Your task to perform on an android device: turn on bluetooth scan Image 0: 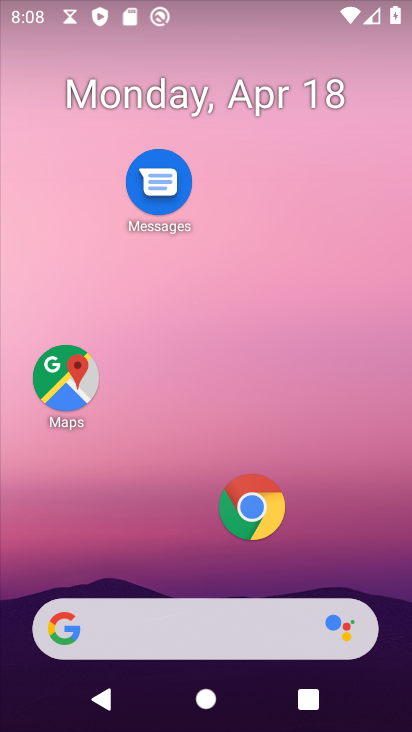
Step 0: drag from (218, 592) to (258, 248)
Your task to perform on an android device: turn on bluetooth scan Image 1: 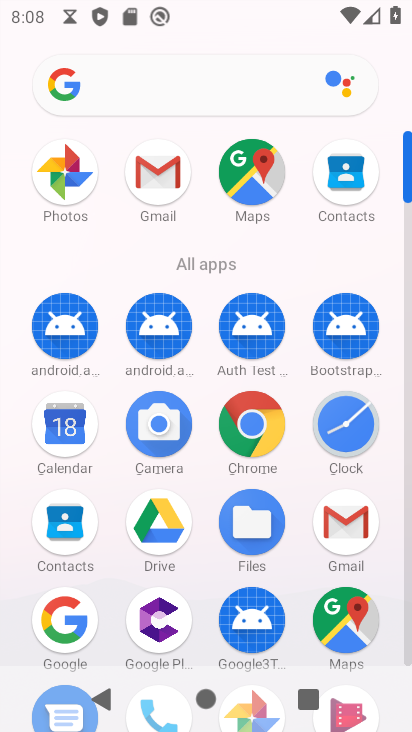
Step 1: drag from (209, 630) to (220, 255)
Your task to perform on an android device: turn on bluetooth scan Image 2: 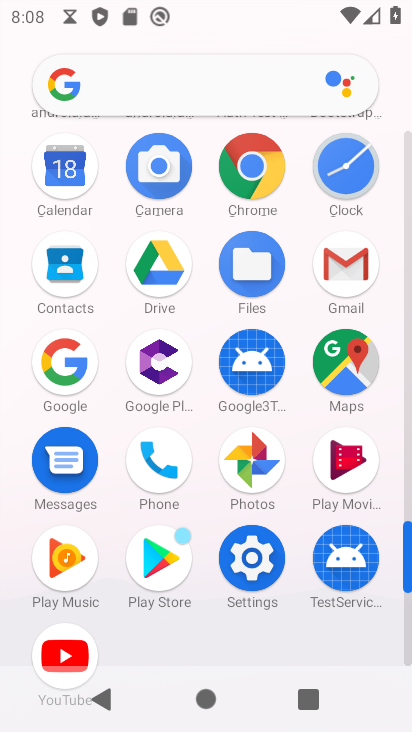
Step 2: click (257, 554)
Your task to perform on an android device: turn on bluetooth scan Image 3: 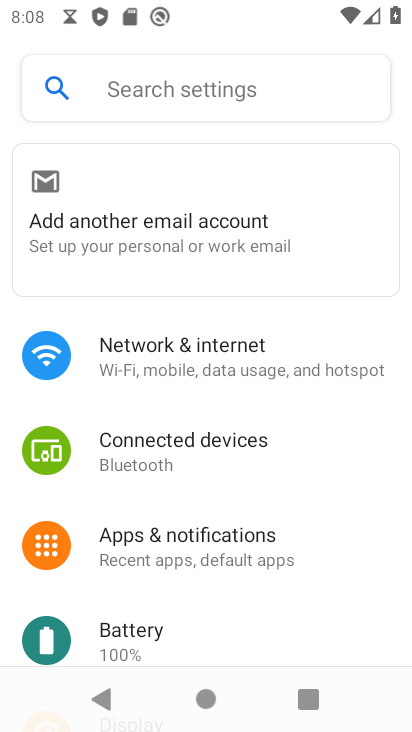
Step 3: drag from (199, 562) to (207, 280)
Your task to perform on an android device: turn on bluetooth scan Image 4: 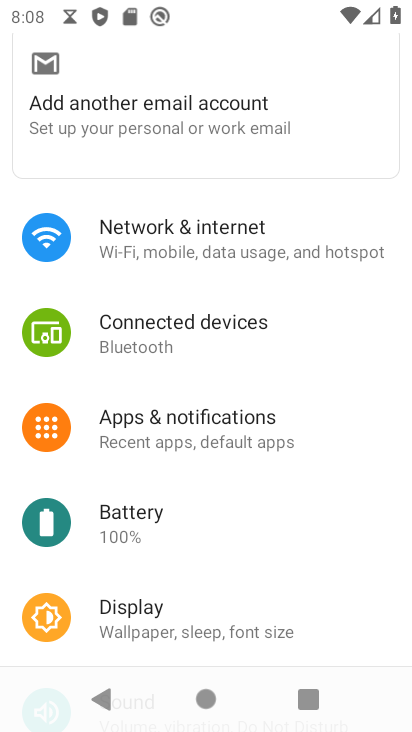
Step 4: drag from (167, 551) to (196, 258)
Your task to perform on an android device: turn on bluetooth scan Image 5: 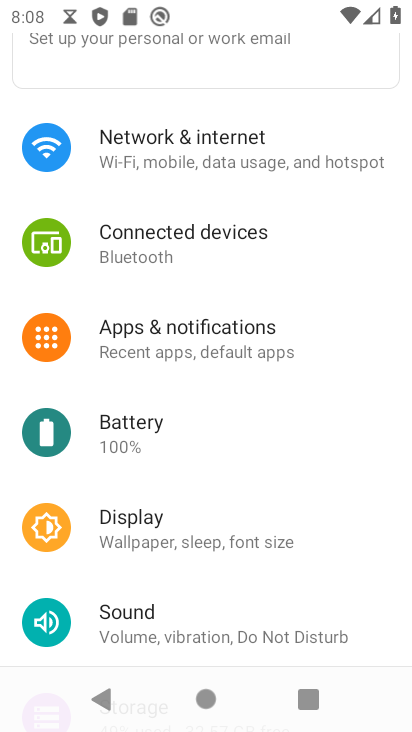
Step 5: drag from (152, 632) to (179, 322)
Your task to perform on an android device: turn on bluetooth scan Image 6: 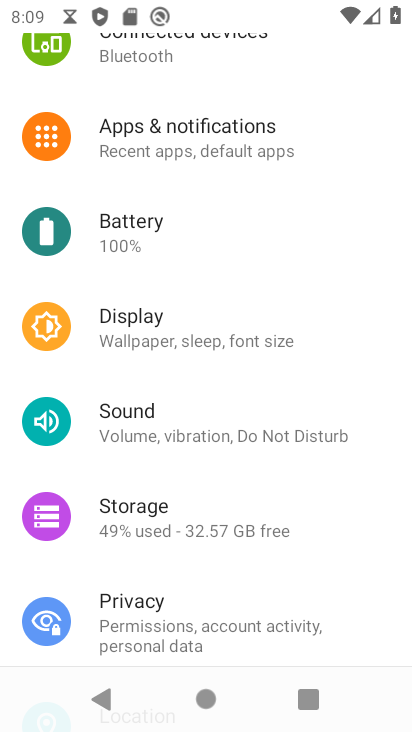
Step 6: drag from (233, 618) to (254, 320)
Your task to perform on an android device: turn on bluetooth scan Image 7: 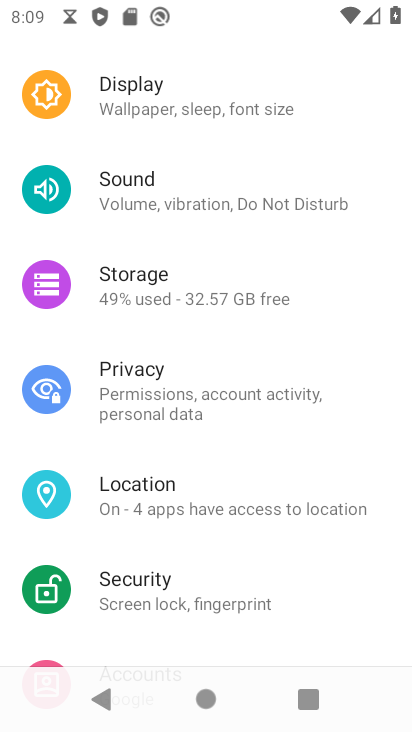
Step 7: click (208, 503)
Your task to perform on an android device: turn on bluetooth scan Image 8: 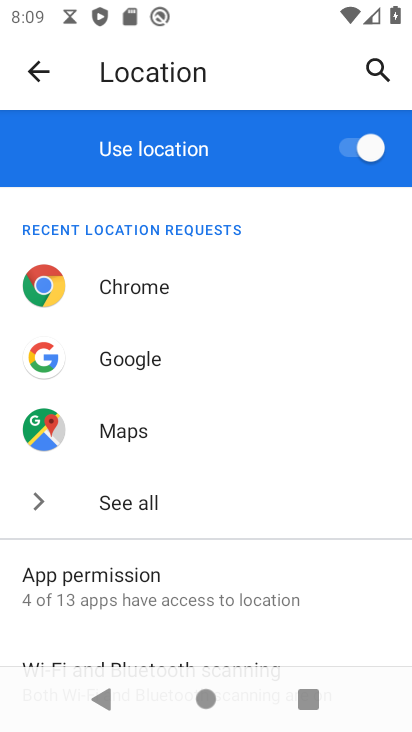
Step 8: click (35, 69)
Your task to perform on an android device: turn on bluetooth scan Image 9: 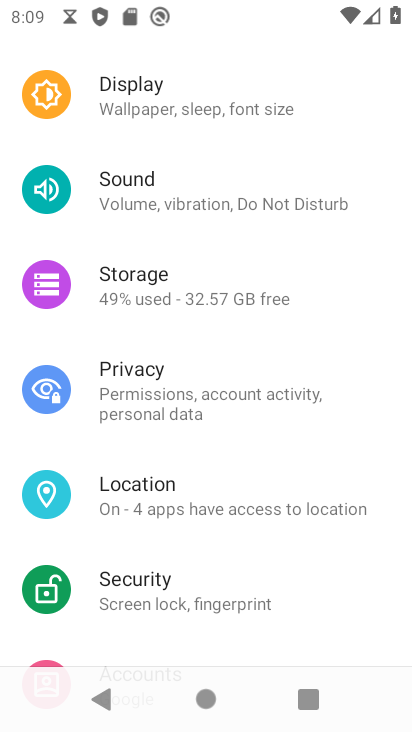
Step 9: click (153, 492)
Your task to perform on an android device: turn on bluetooth scan Image 10: 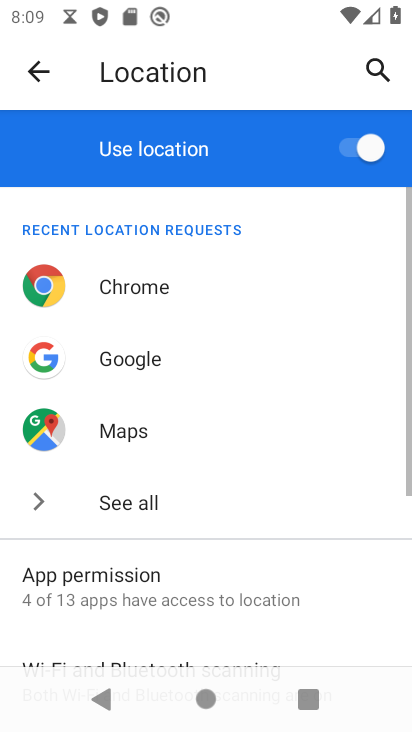
Step 10: drag from (150, 616) to (235, 250)
Your task to perform on an android device: turn on bluetooth scan Image 11: 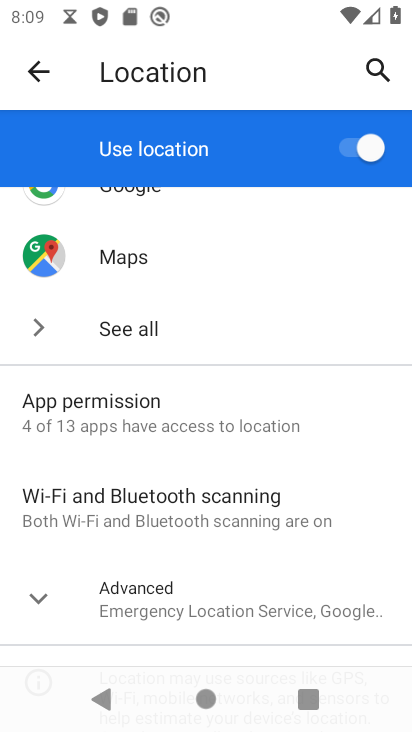
Step 11: click (155, 502)
Your task to perform on an android device: turn on bluetooth scan Image 12: 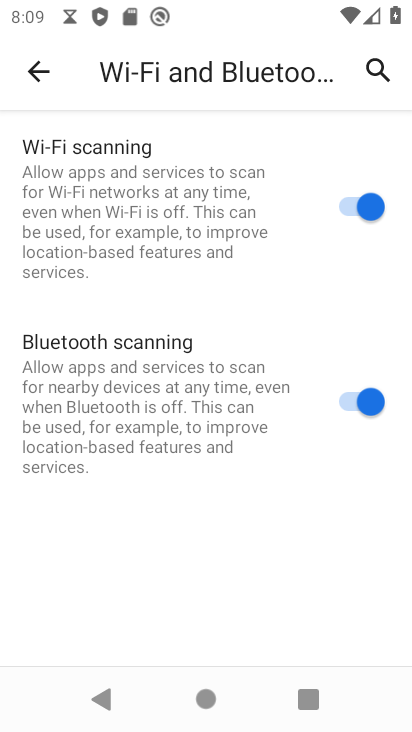
Step 12: task complete